Your task to perform on an android device: turn on data saver in the chrome app Image 0: 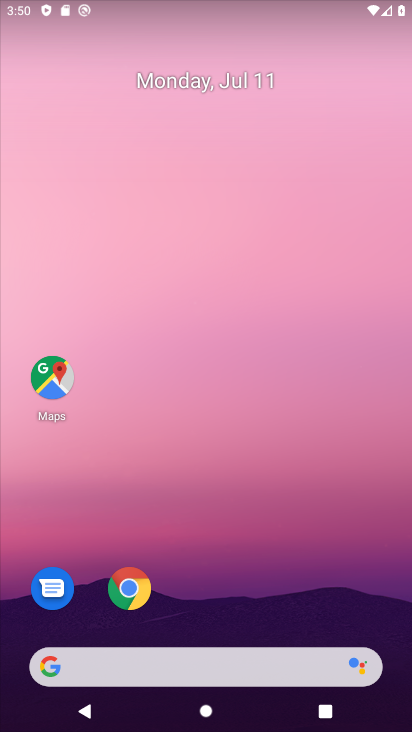
Step 0: drag from (273, 513) to (0, 499)
Your task to perform on an android device: turn on data saver in the chrome app Image 1: 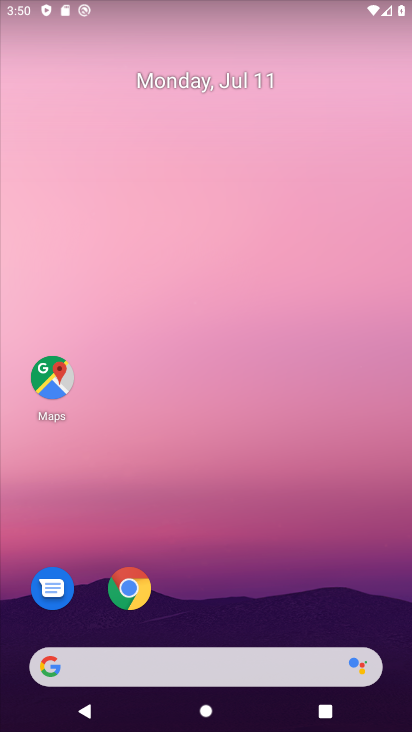
Step 1: drag from (270, 546) to (291, 0)
Your task to perform on an android device: turn on data saver in the chrome app Image 2: 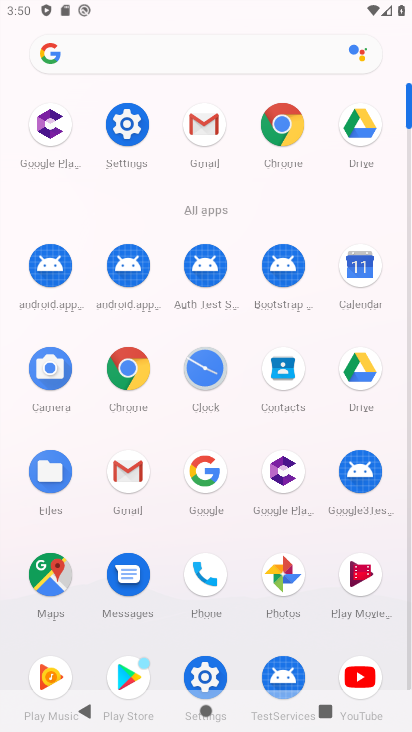
Step 2: click (125, 125)
Your task to perform on an android device: turn on data saver in the chrome app Image 3: 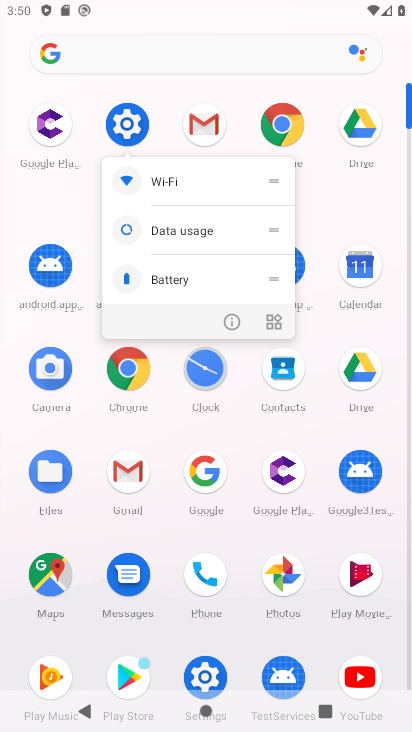
Step 3: click (125, 126)
Your task to perform on an android device: turn on data saver in the chrome app Image 4: 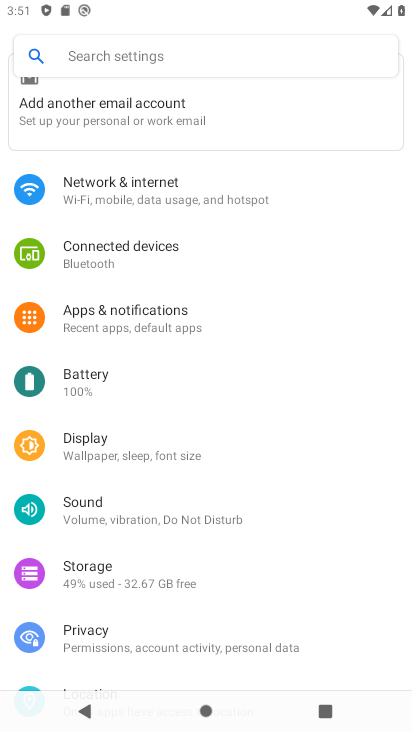
Step 4: drag from (229, 299) to (219, 545)
Your task to perform on an android device: turn on data saver in the chrome app Image 5: 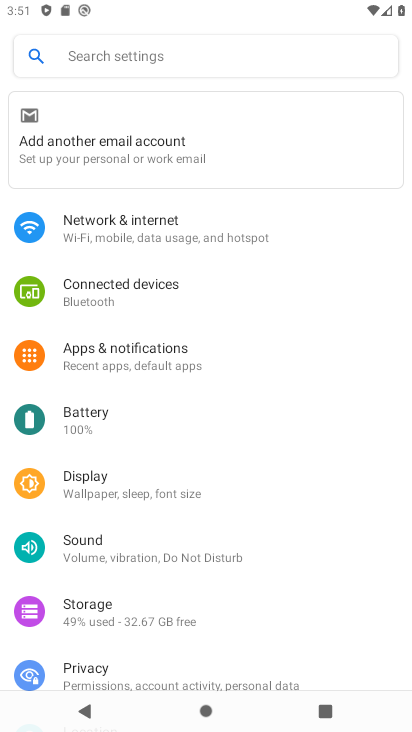
Step 5: drag from (162, 584) to (262, 173)
Your task to perform on an android device: turn on data saver in the chrome app Image 6: 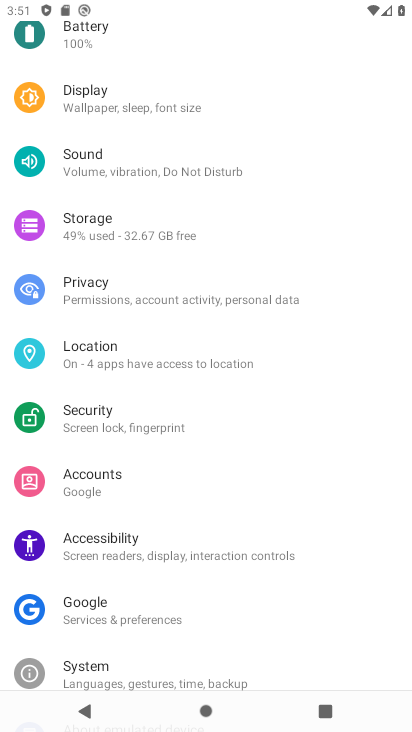
Step 6: drag from (162, 688) to (263, 222)
Your task to perform on an android device: turn on data saver in the chrome app Image 7: 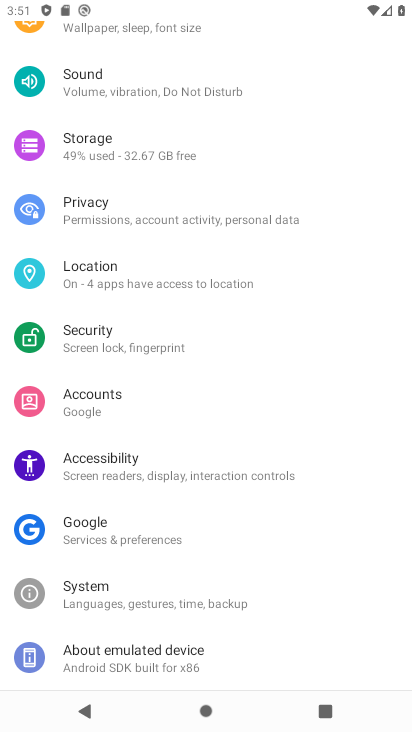
Step 7: drag from (272, 264) to (212, 722)
Your task to perform on an android device: turn on data saver in the chrome app Image 8: 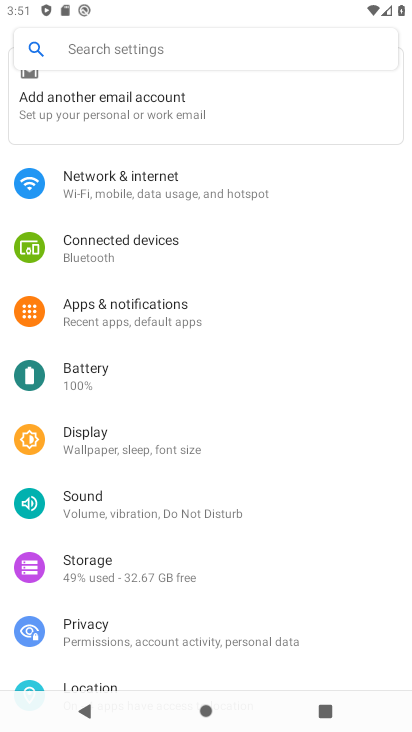
Step 8: drag from (294, 127) to (284, 660)
Your task to perform on an android device: turn on data saver in the chrome app Image 9: 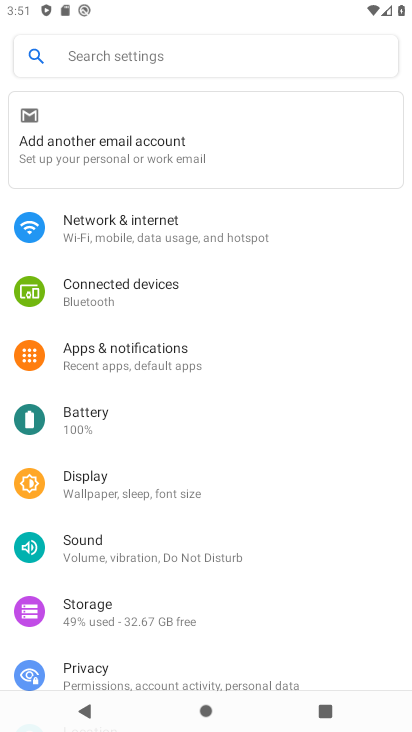
Step 9: click (149, 230)
Your task to perform on an android device: turn on data saver in the chrome app Image 10: 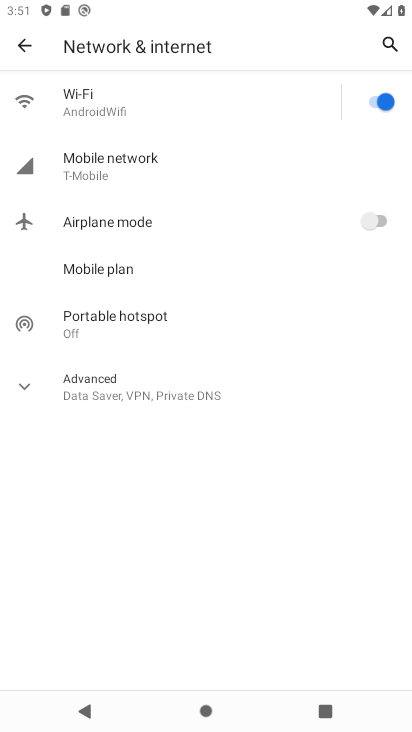
Step 10: click (79, 398)
Your task to perform on an android device: turn on data saver in the chrome app Image 11: 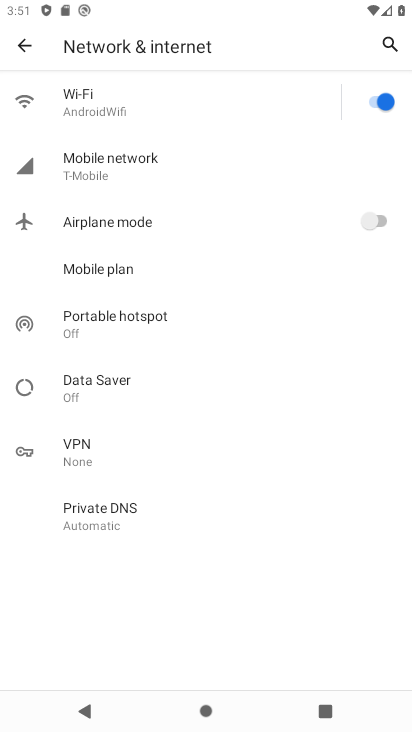
Step 11: click (81, 393)
Your task to perform on an android device: turn on data saver in the chrome app Image 12: 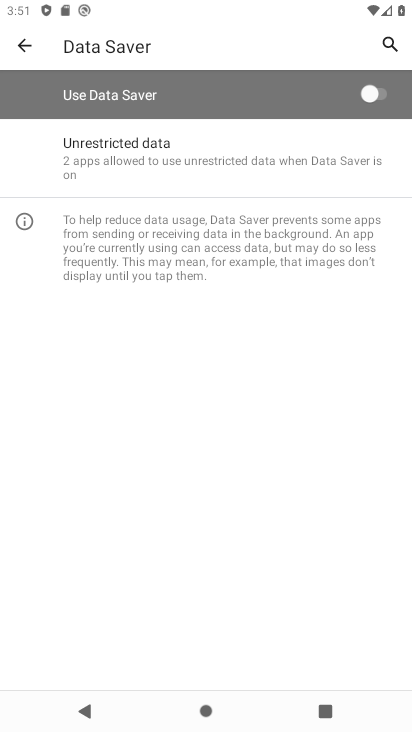
Step 12: click (382, 98)
Your task to perform on an android device: turn on data saver in the chrome app Image 13: 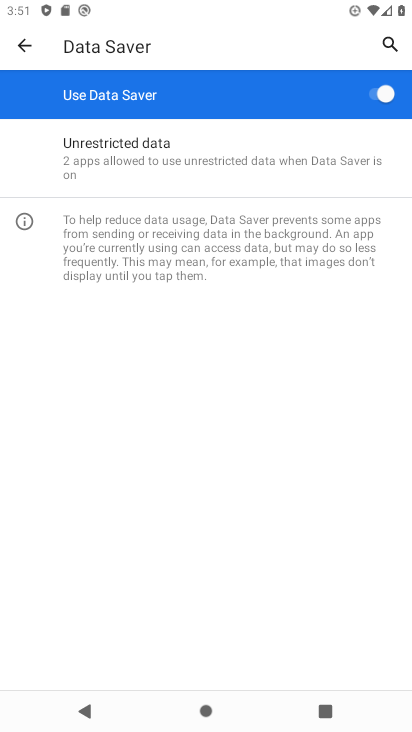
Step 13: task complete